Your task to perform on an android device: turn off notifications settings in the gmail app Image 0: 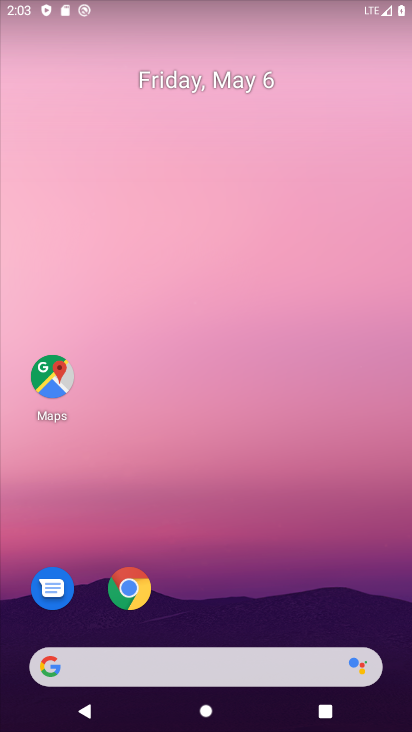
Step 0: drag from (347, 602) to (341, 167)
Your task to perform on an android device: turn off notifications settings in the gmail app Image 1: 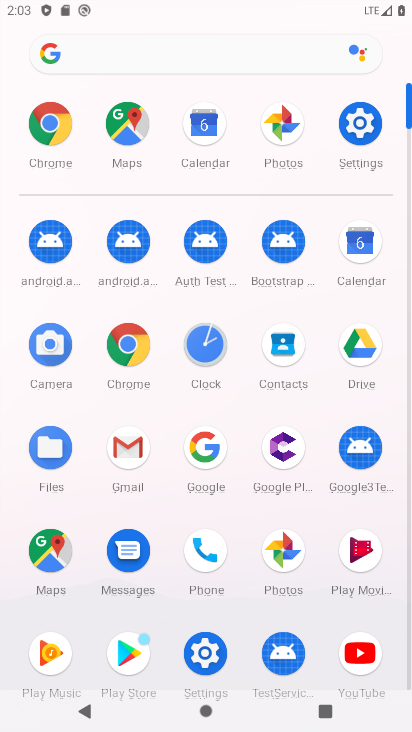
Step 1: click (124, 445)
Your task to perform on an android device: turn off notifications settings in the gmail app Image 2: 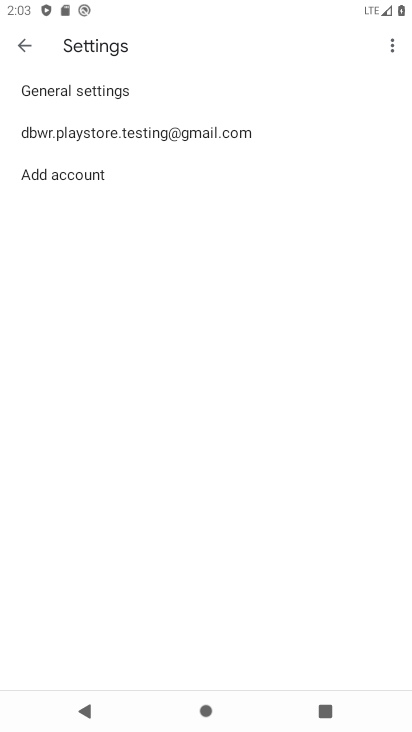
Step 2: click (172, 126)
Your task to perform on an android device: turn off notifications settings in the gmail app Image 3: 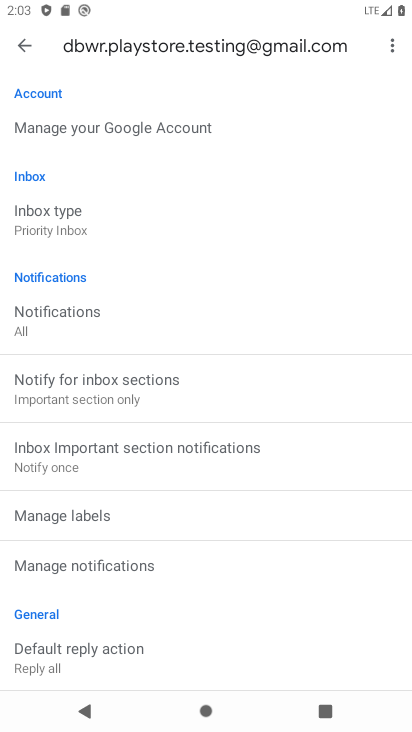
Step 3: click (68, 310)
Your task to perform on an android device: turn off notifications settings in the gmail app Image 4: 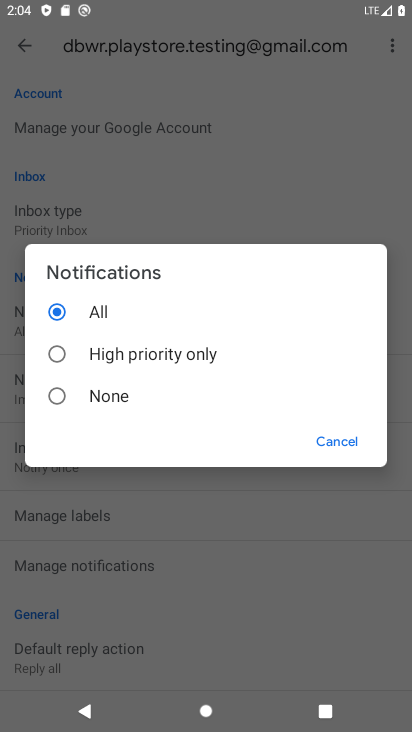
Step 4: click (105, 395)
Your task to perform on an android device: turn off notifications settings in the gmail app Image 5: 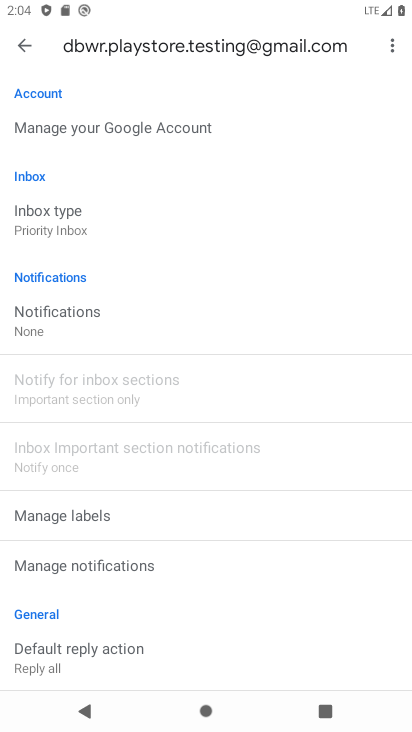
Step 5: task complete